Your task to perform on an android device: Open calendar and show me the third week of next month Image 0: 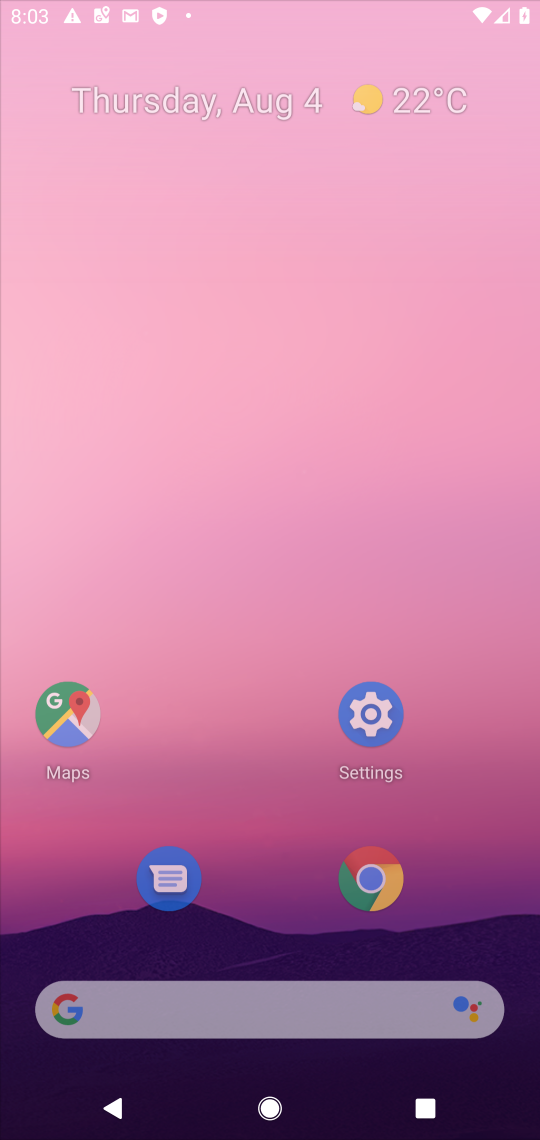
Step 0: press home button
Your task to perform on an android device: Open calendar and show me the third week of next month Image 1: 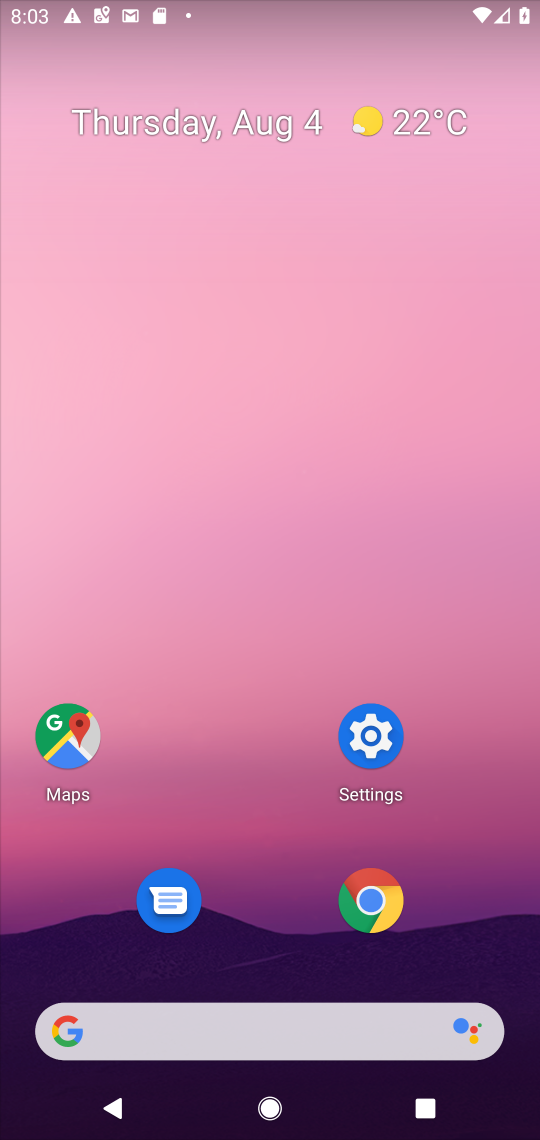
Step 1: press home button
Your task to perform on an android device: Open calendar and show me the third week of next month Image 2: 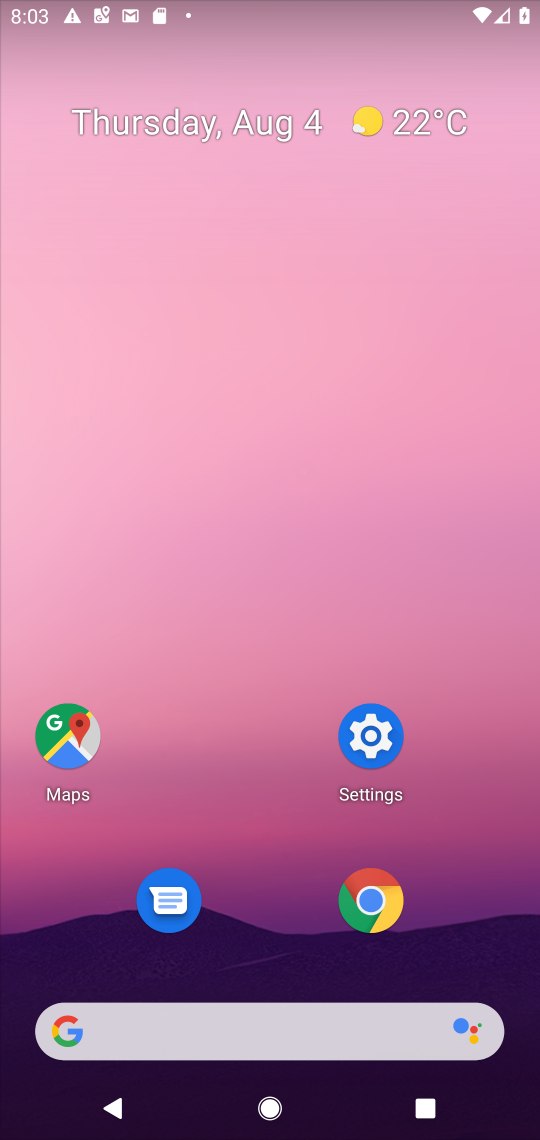
Step 2: drag from (178, 994) to (445, 125)
Your task to perform on an android device: Open calendar and show me the third week of next month Image 3: 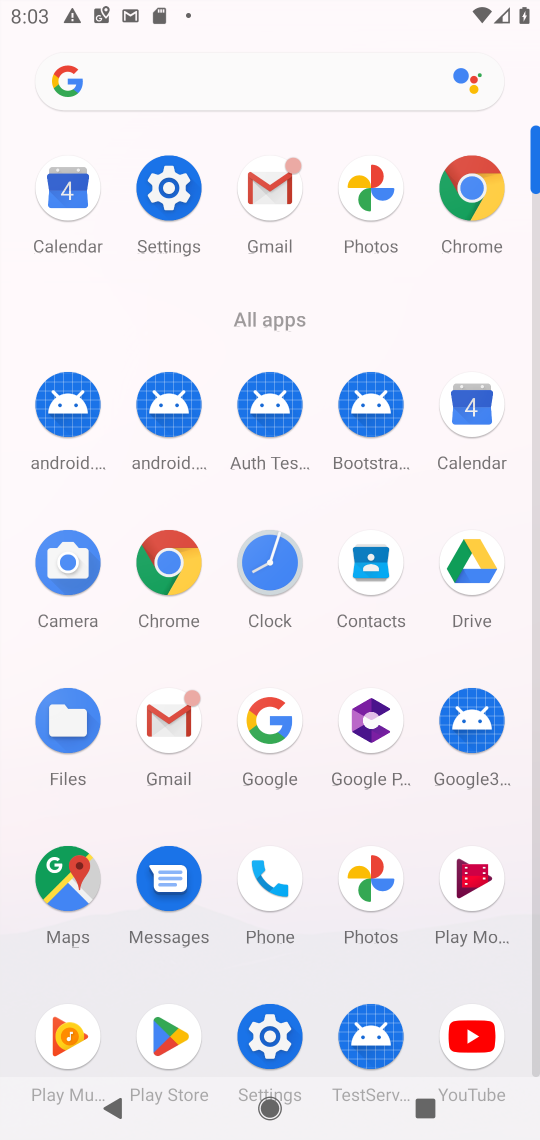
Step 3: click (475, 416)
Your task to perform on an android device: Open calendar and show me the third week of next month Image 4: 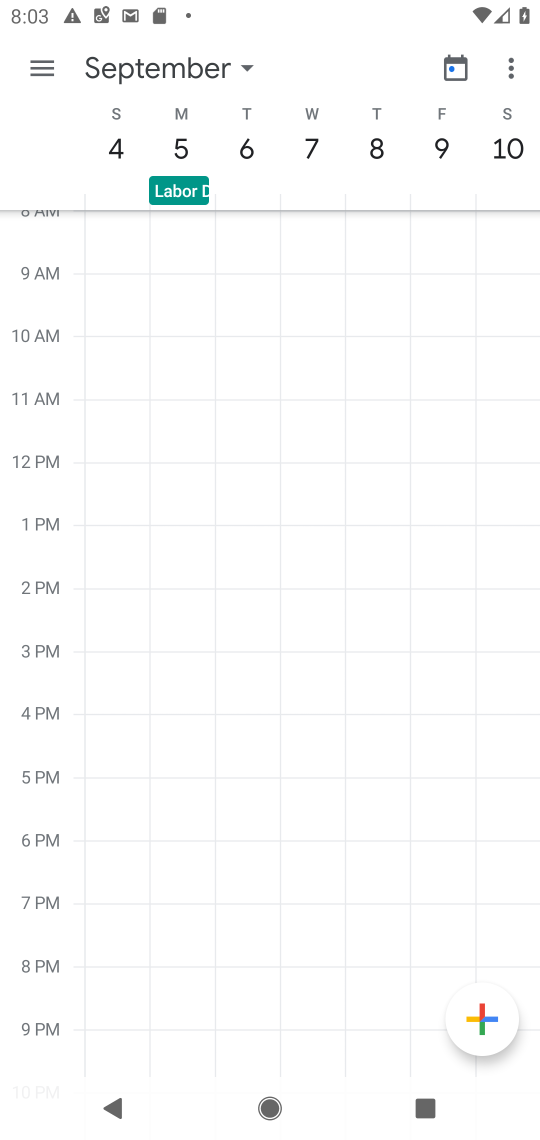
Step 4: click (187, 73)
Your task to perform on an android device: Open calendar and show me the third week of next month Image 5: 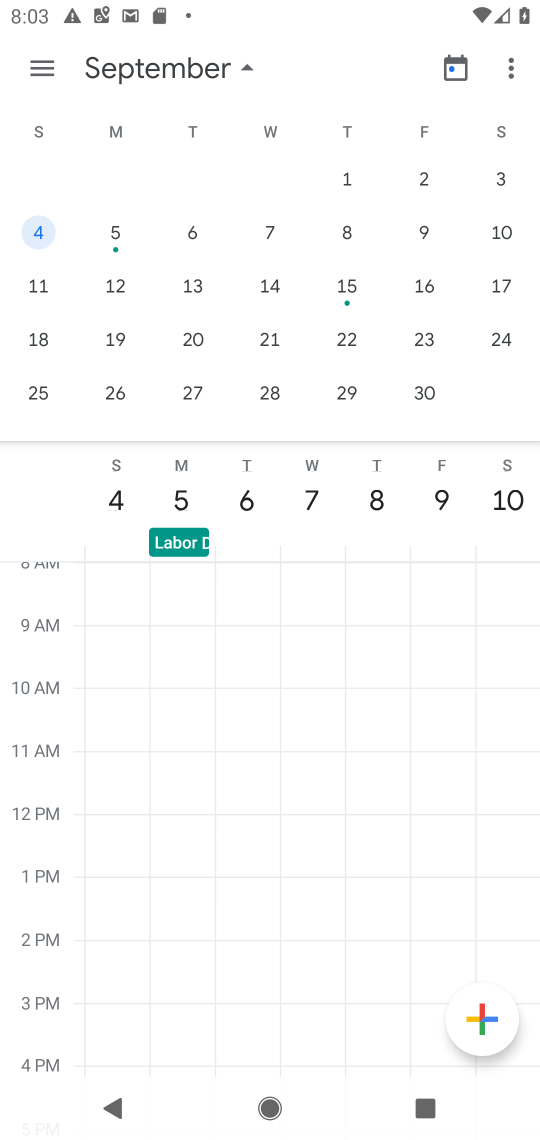
Step 5: click (44, 286)
Your task to perform on an android device: Open calendar and show me the third week of next month Image 6: 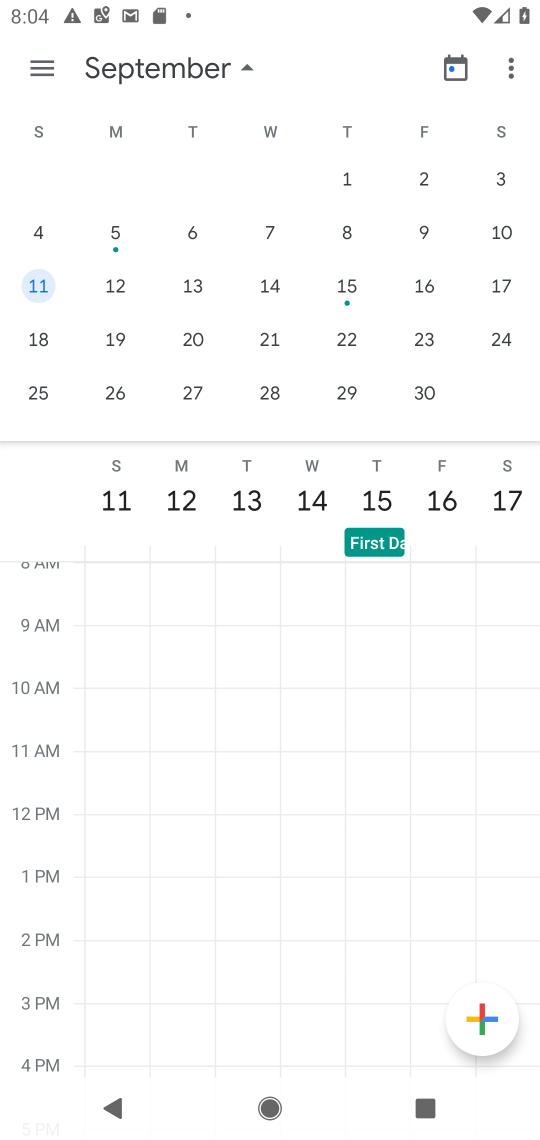
Step 6: click (47, 60)
Your task to perform on an android device: Open calendar and show me the third week of next month Image 7: 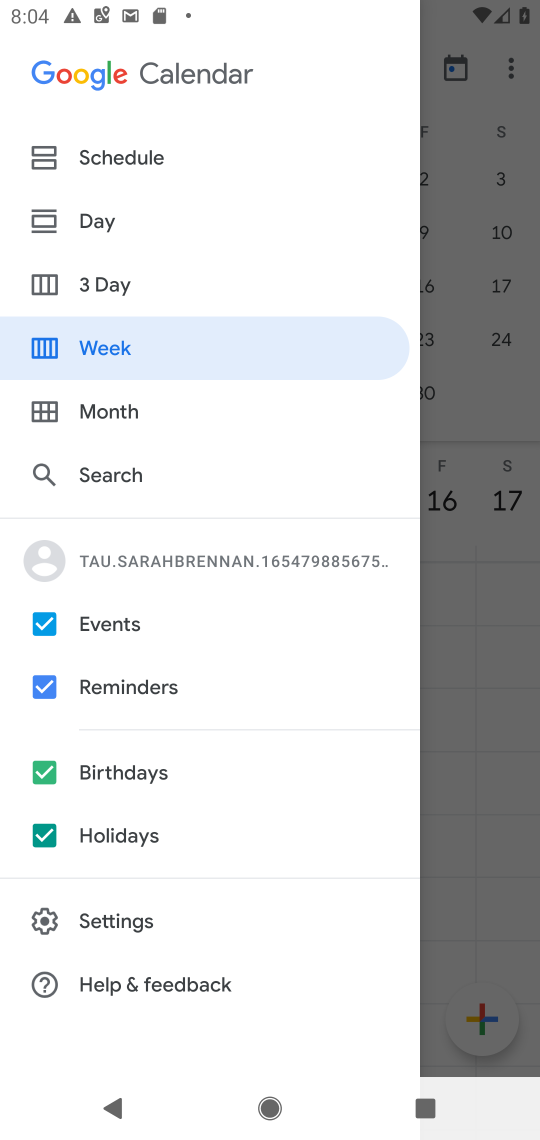
Step 7: click (141, 345)
Your task to perform on an android device: Open calendar and show me the third week of next month Image 8: 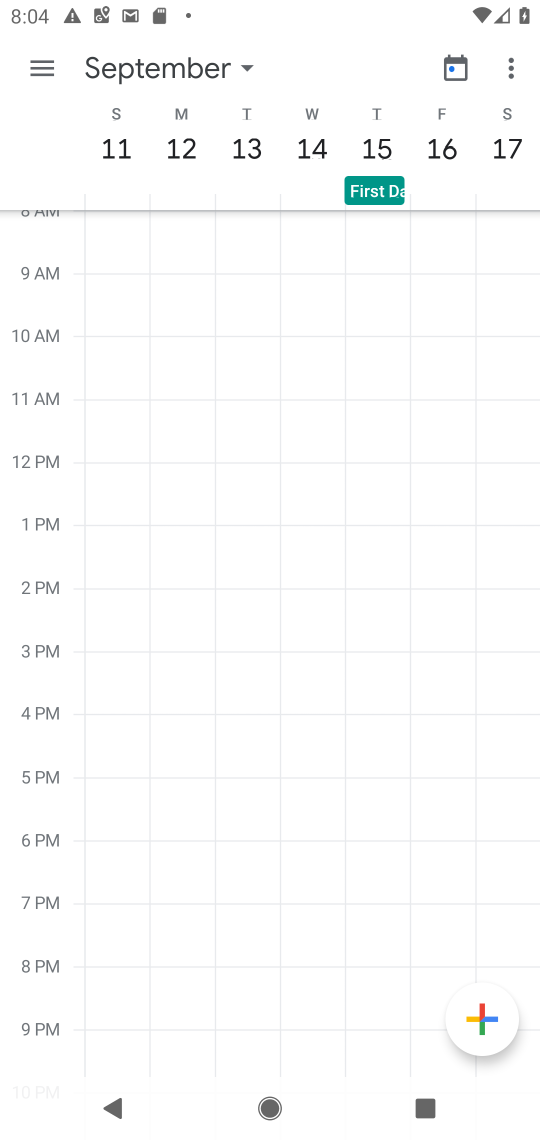
Step 8: task complete